Your task to perform on an android device: set the stopwatch Image 0: 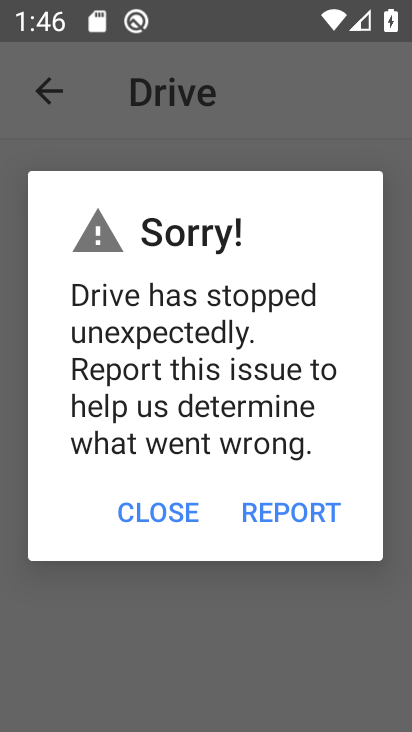
Step 0: press home button
Your task to perform on an android device: set the stopwatch Image 1: 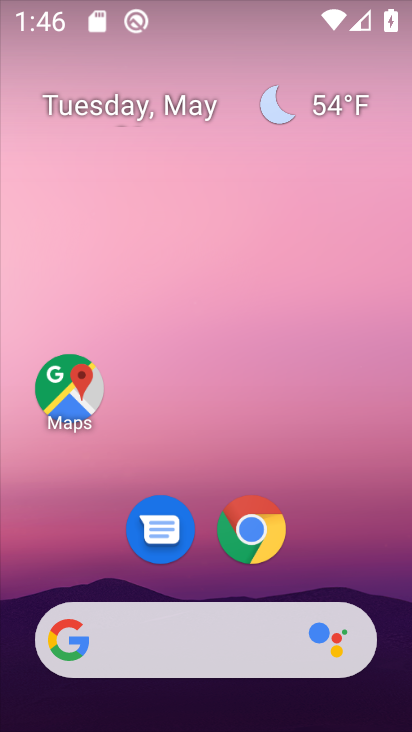
Step 1: drag from (286, 578) to (272, 201)
Your task to perform on an android device: set the stopwatch Image 2: 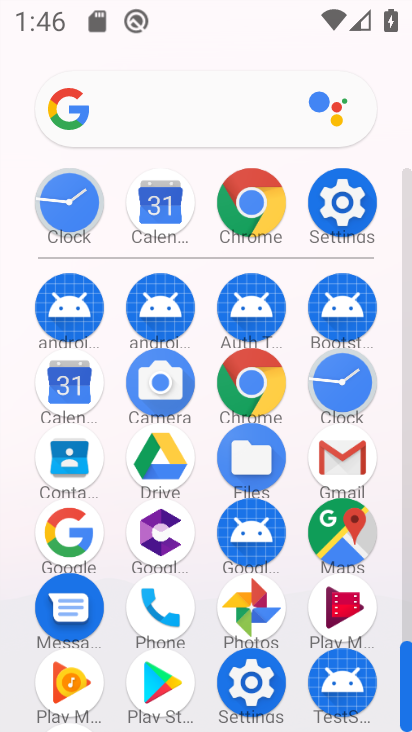
Step 2: click (330, 380)
Your task to perform on an android device: set the stopwatch Image 3: 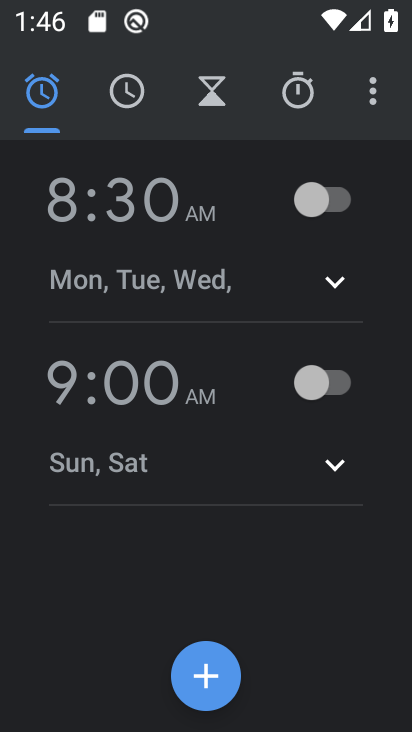
Step 3: click (293, 83)
Your task to perform on an android device: set the stopwatch Image 4: 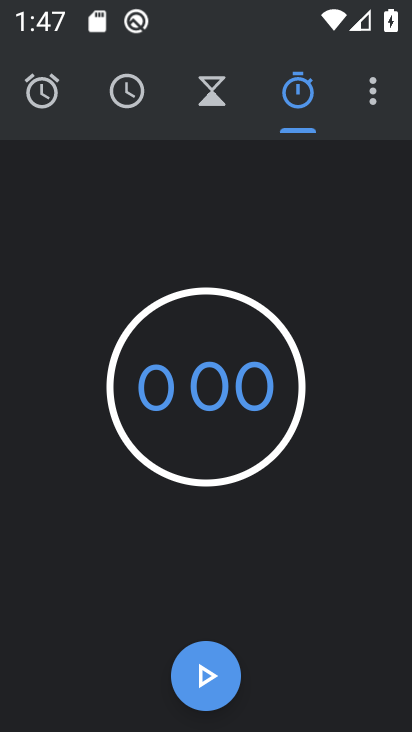
Step 4: task complete